Your task to perform on an android device: open chrome and create a bookmark for the current page Image 0: 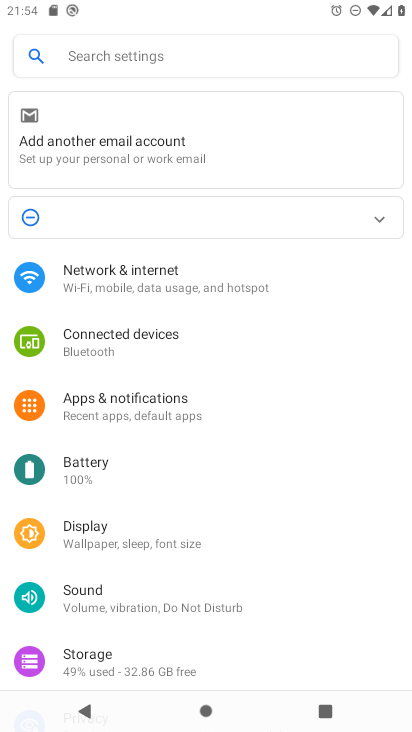
Step 0: press home button
Your task to perform on an android device: open chrome and create a bookmark for the current page Image 1: 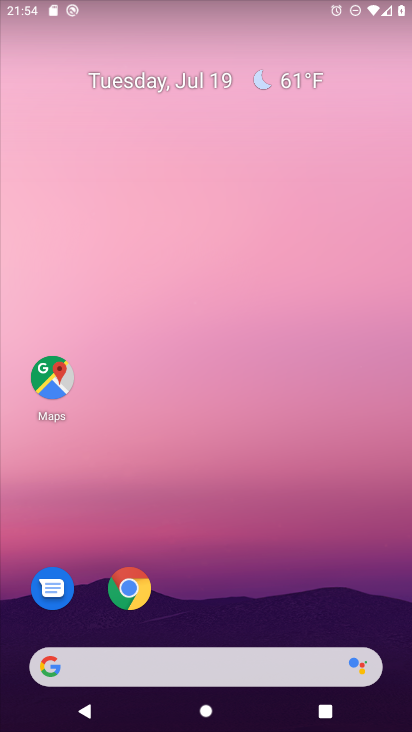
Step 1: click (125, 578)
Your task to perform on an android device: open chrome and create a bookmark for the current page Image 2: 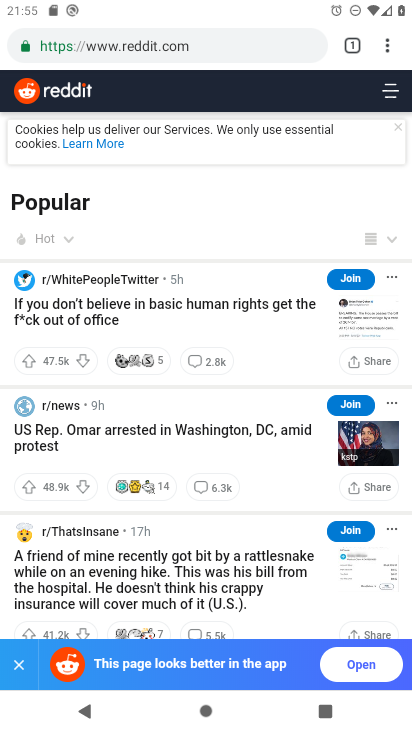
Step 2: click (390, 45)
Your task to perform on an android device: open chrome and create a bookmark for the current page Image 3: 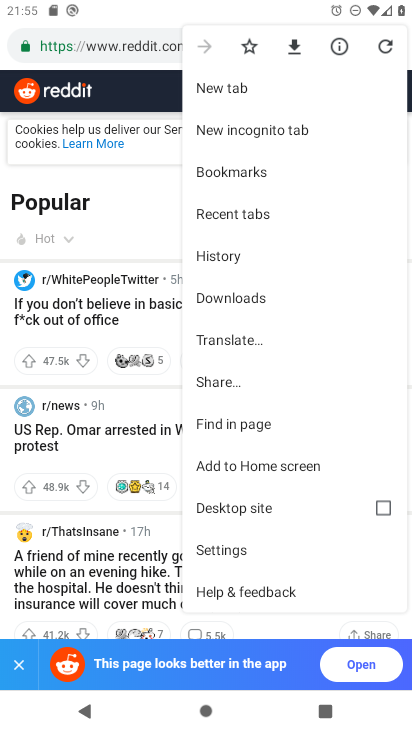
Step 3: click (253, 54)
Your task to perform on an android device: open chrome and create a bookmark for the current page Image 4: 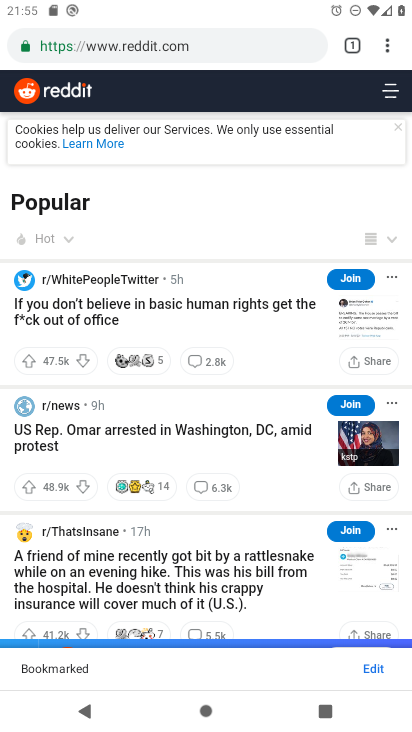
Step 4: task complete